Your task to perform on an android device: check battery use Image 0: 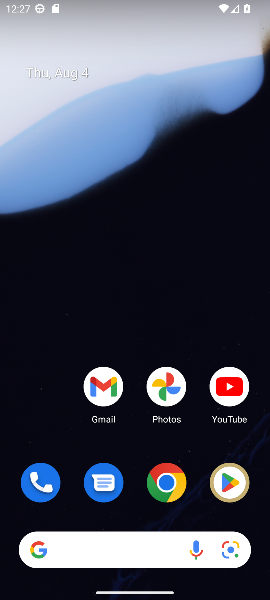
Step 0: drag from (134, 459) to (134, 144)
Your task to perform on an android device: check battery use Image 1: 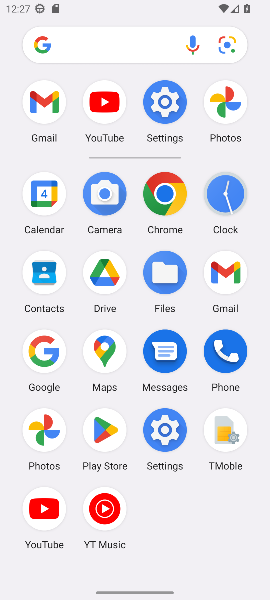
Step 1: click (159, 113)
Your task to perform on an android device: check battery use Image 2: 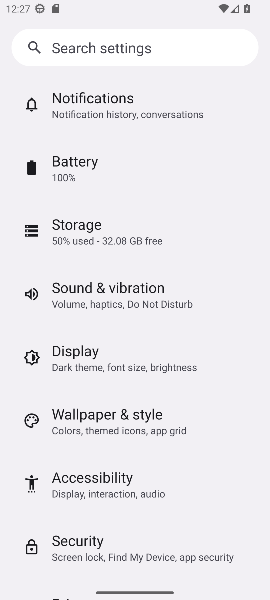
Step 2: click (104, 188)
Your task to perform on an android device: check battery use Image 3: 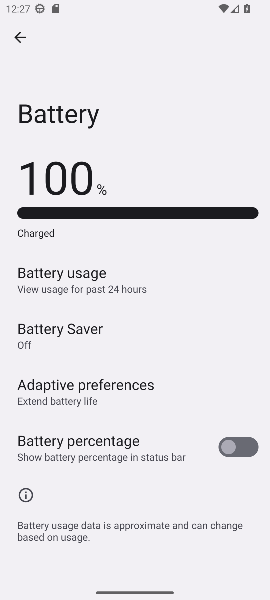
Step 3: click (132, 274)
Your task to perform on an android device: check battery use Image 4: 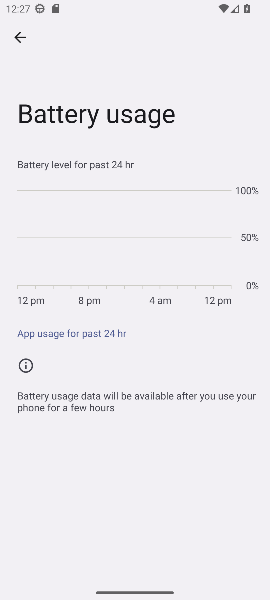
Step 4: task complete